Your task to perform on an android device: open a bookmark in the chrome app Image 0: 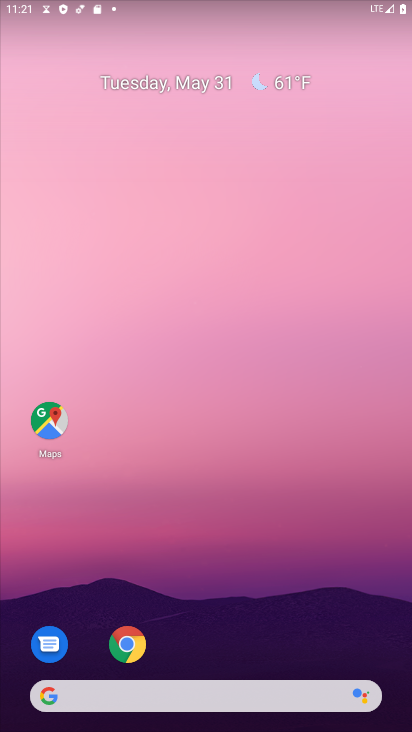
Step 0: click (124, 636)
Your task to perform on an android device: open a bookmark in the chrome app Image 1: 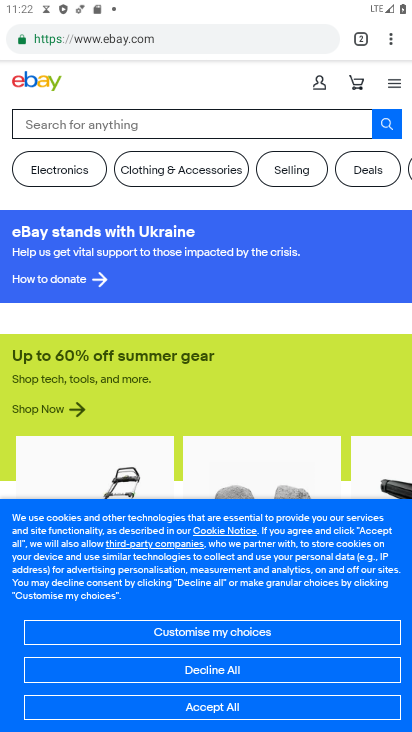
Step 1: click (390, 43)
Your task to perform on an android device: open a bookmark in the chrome app Image 2: 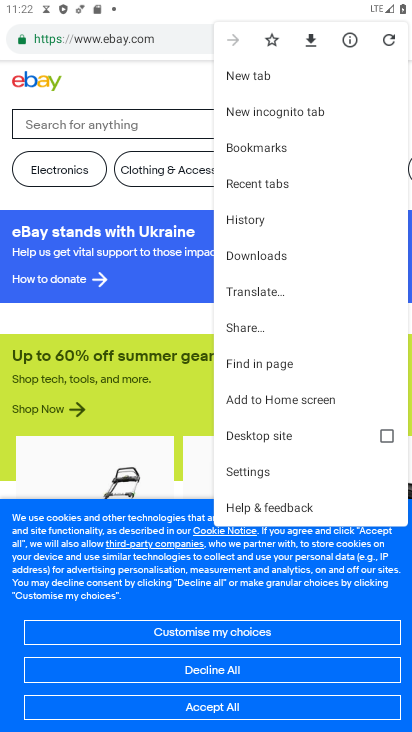
Step 2: click (285, 150)
Your task to perform on an android device: open a bookmark in the chrome app Image 3: 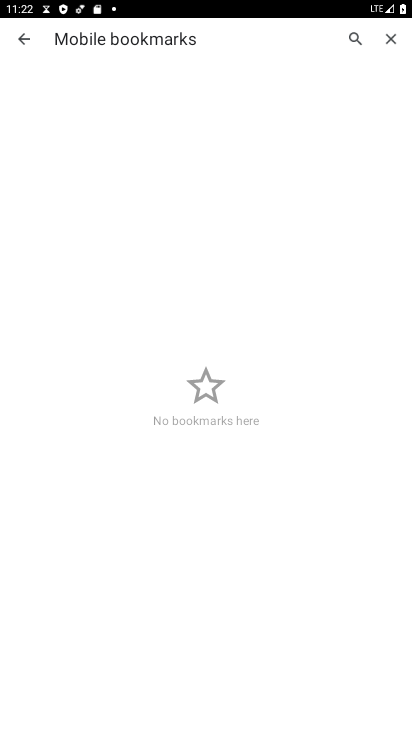
Step 3: task complete